Your task to perform on an android device: Open accessibility settings Image 0: 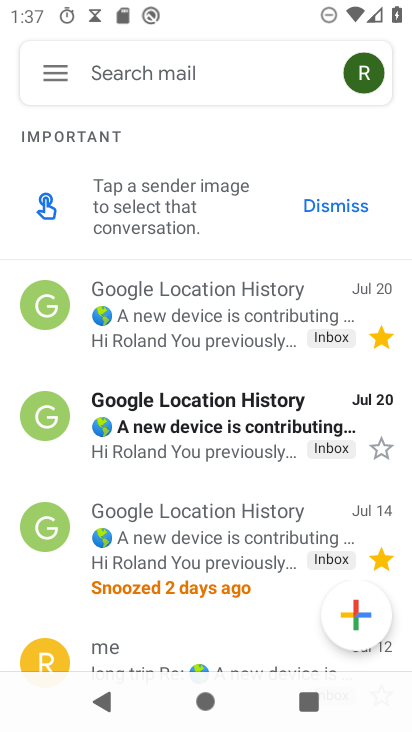
Step 0: press home button
Your task to perform on an android device: Open accessibility settings Image 1: 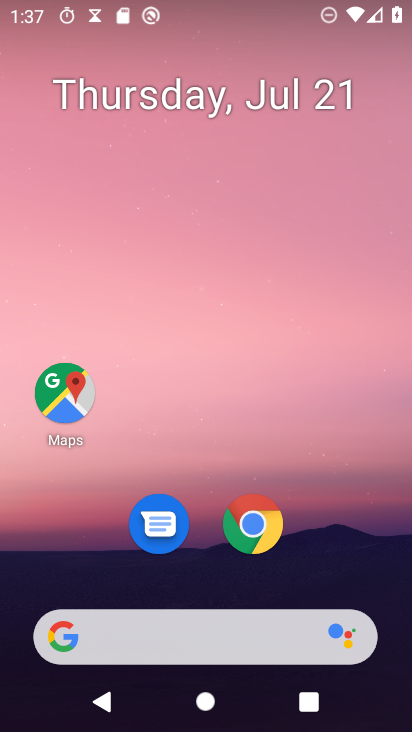
Step 1: drag from (250, 632) to (352, 342)
Your task to perform on an android device: Open accessibility settings Image 2: 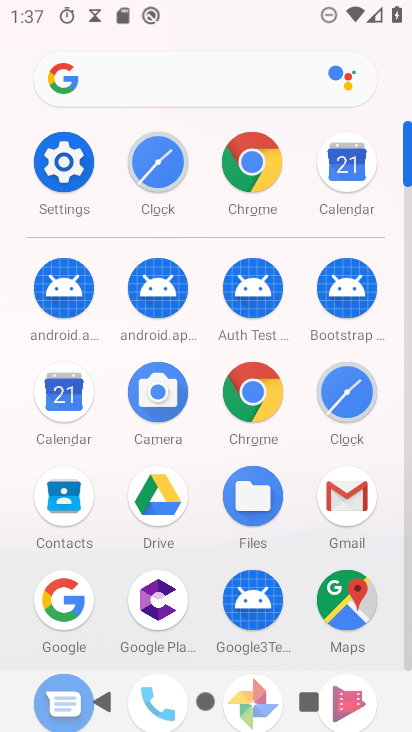
Step 2: drag from (226, 556) to (313, 380)
Your task to perform on an android device: Open accessibility settings Image 3: 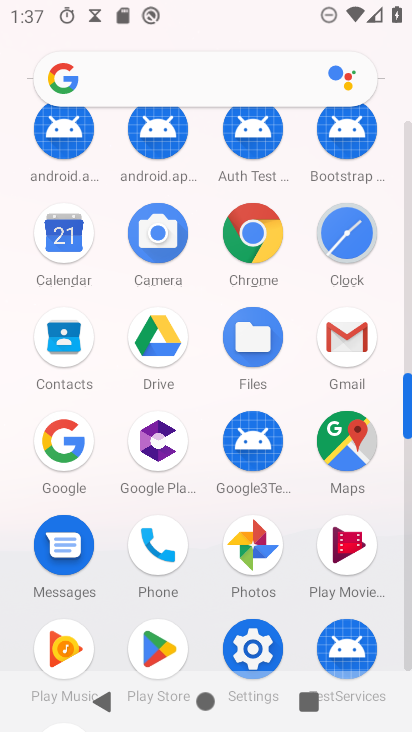
Step 3: click (242, 638)
Your task to perform on an android device: Open accessibility settings Image 4: 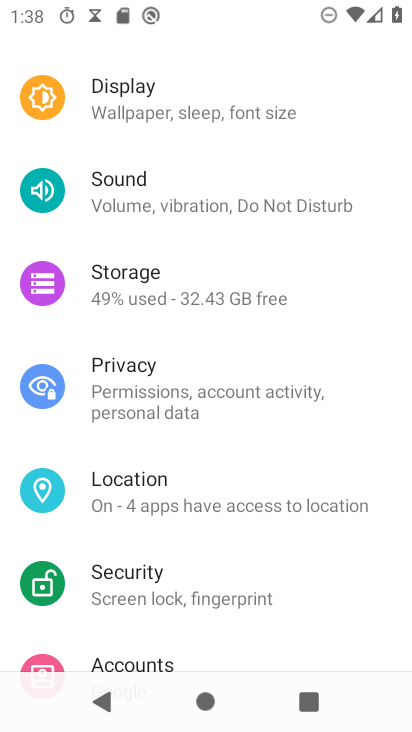
Step 4: drag from (223, 568) to (281, 270)
Your task to perform on an android device: Open accessibility settings Image 5: 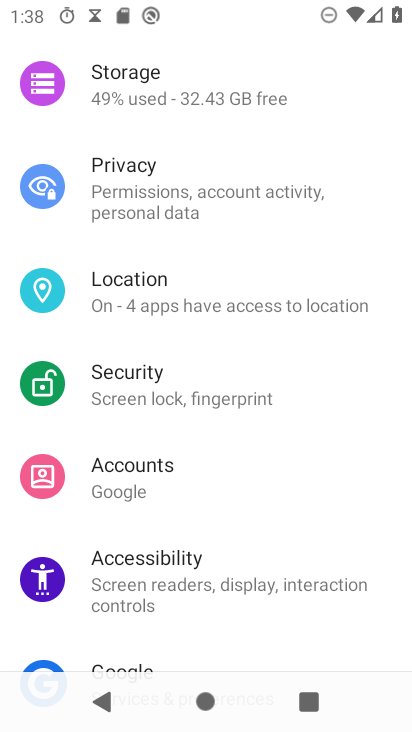
Step 5: click (136, 553)
Your task to perform on an android device: Open accessibility settings Image 6: 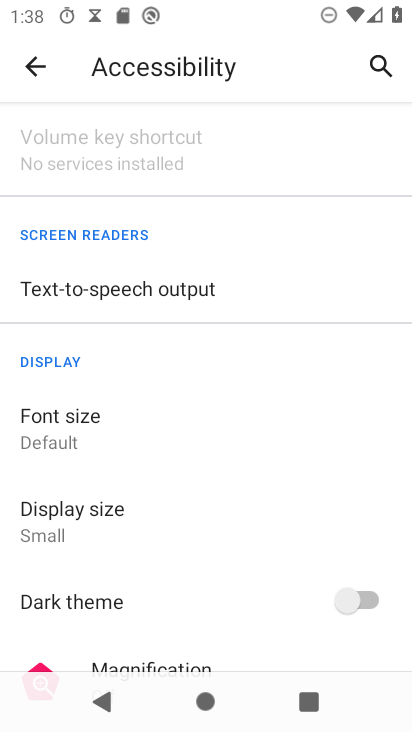
Step 6: task complete